Your task to perform on an android device: open a bookmark in the chrome app Image 0: 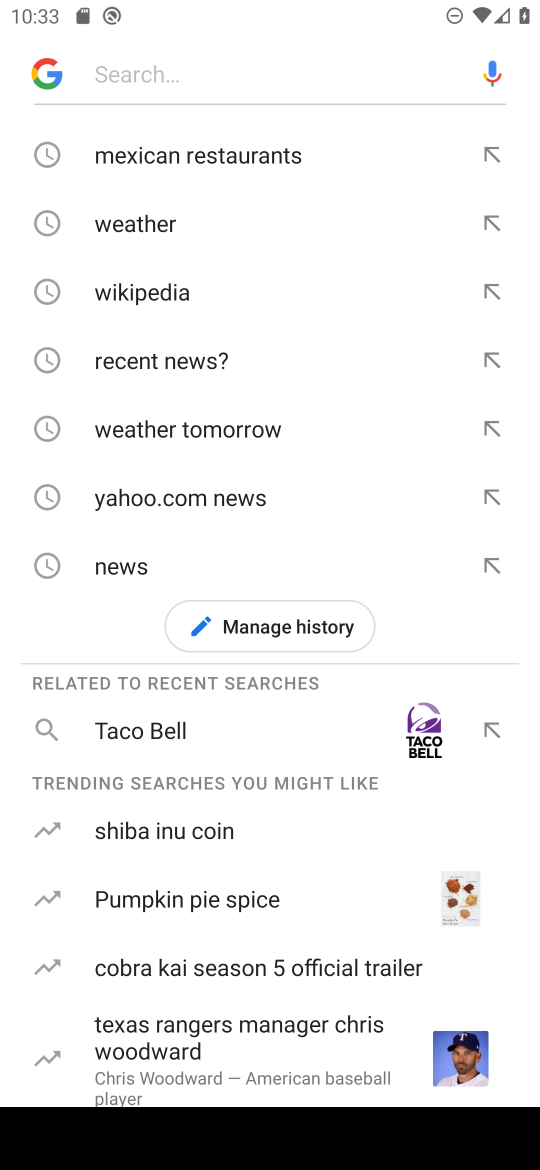
Step 0: press home button
Your task to perform on an android device: open a bookmark in the chrome app Image 1: 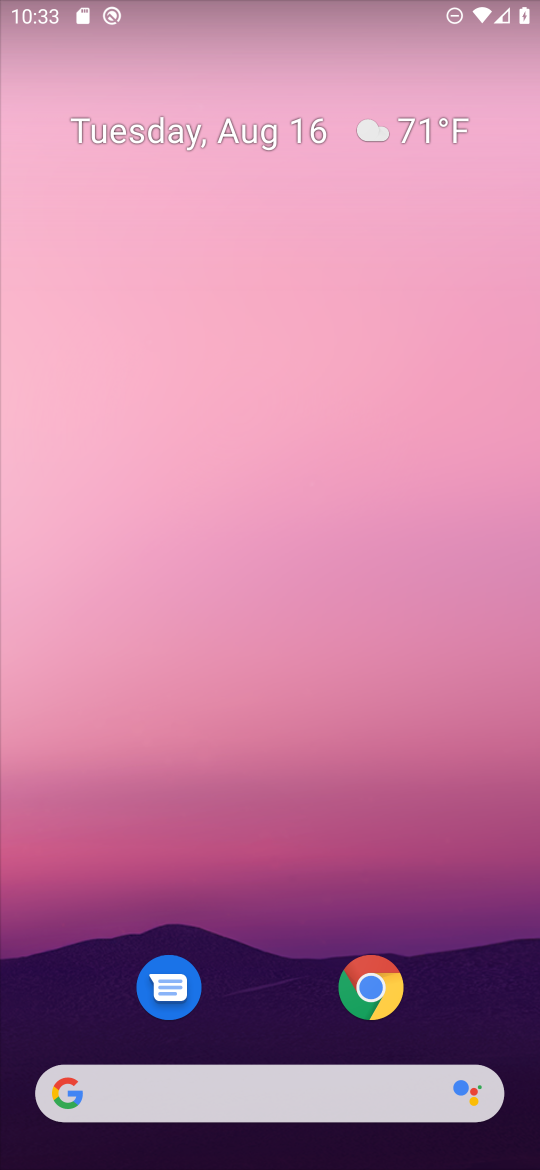
Step 1: drag from (12, 1136) to (358, 406)
Your task to perform on an android device: open a bookmark in the chrome app Image 2: 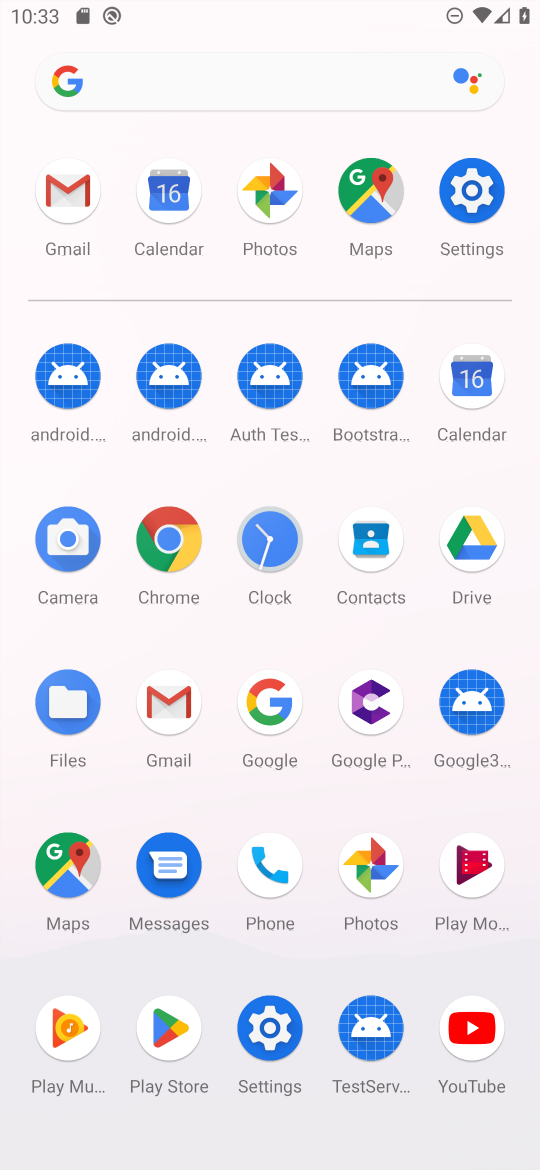
Step 2: click (189, 563)
Your task to perform on an android device: open a bookmark in the chrome app Image 3: 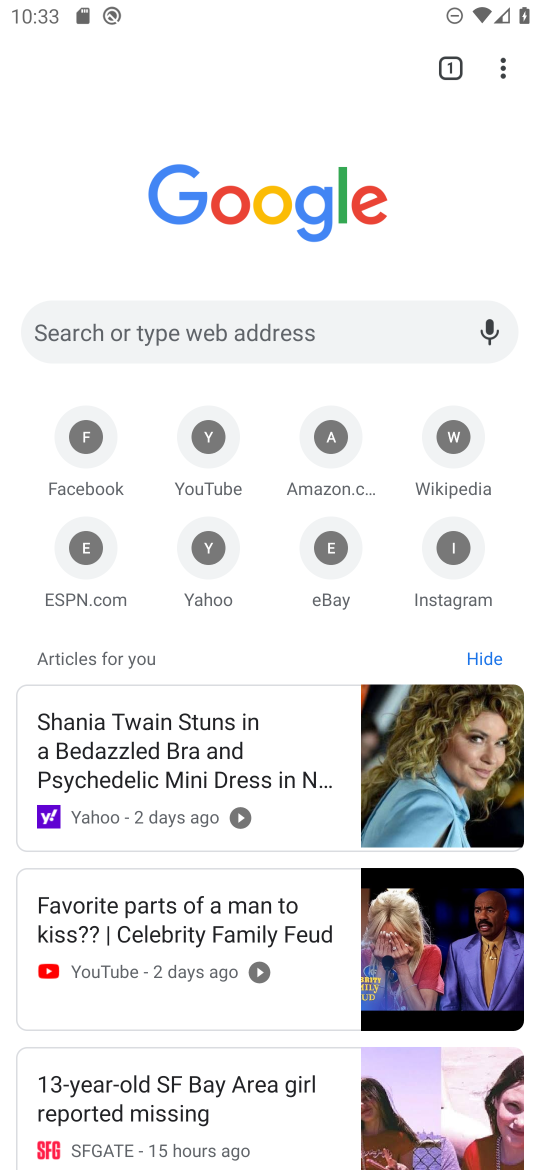
Step 3: click (509, 70)
Your task to perform on an android device: open a bookmark in the chrome app Image 4: 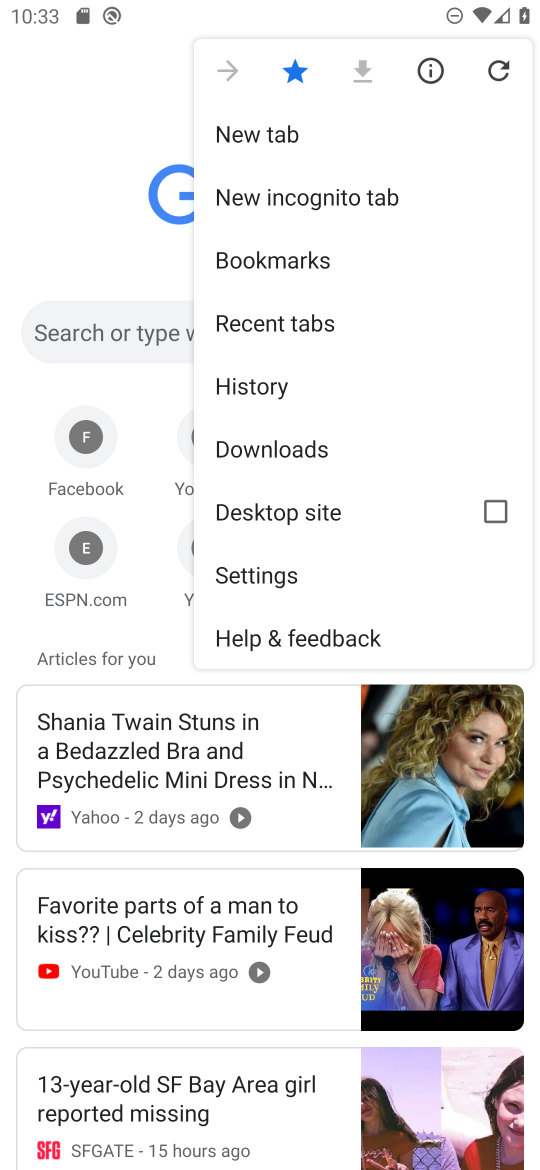
Step 4: click (293, 261)
Your task to perform on an android device: open a bookmark in the chrome app Image 5: 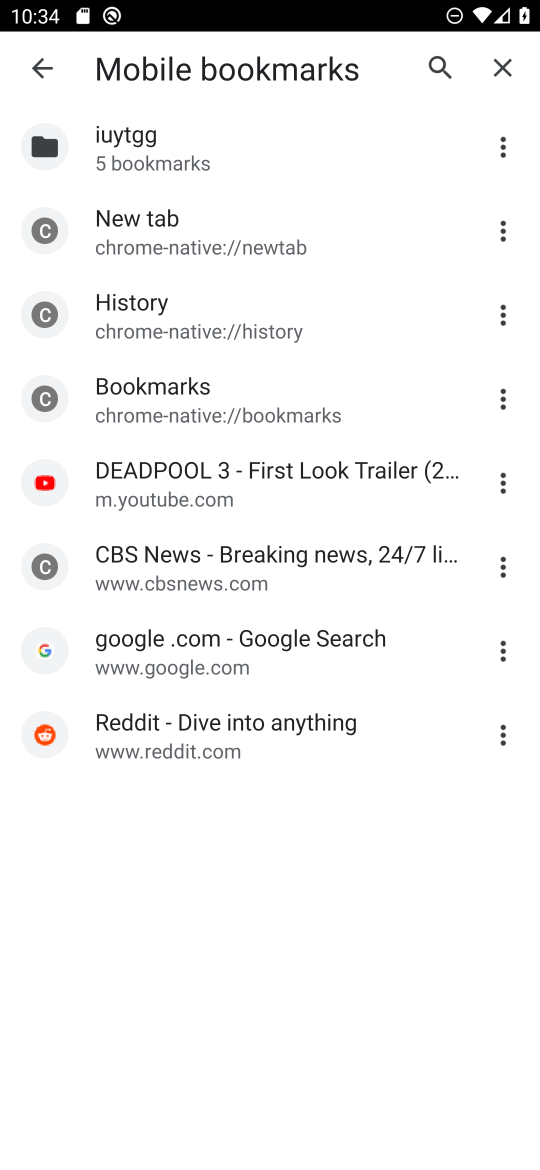
Step 5: task complete